Your task to perform on an android device: Go to battery settings Image 0: 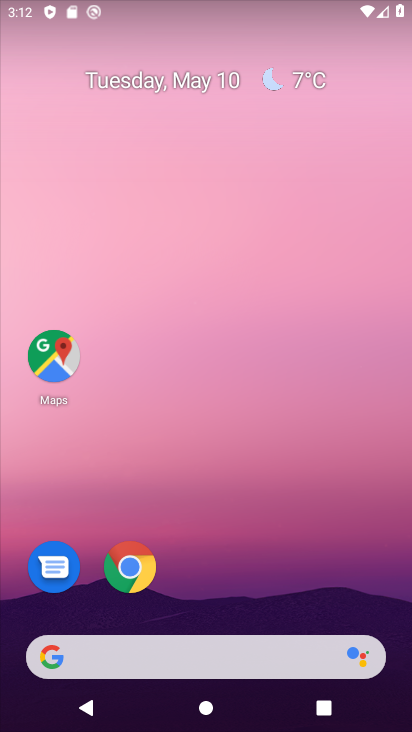
Step 0: drag from (237, 571) to (263, 59)
Your task to perform on an android device: Go to battery settings Image 1: 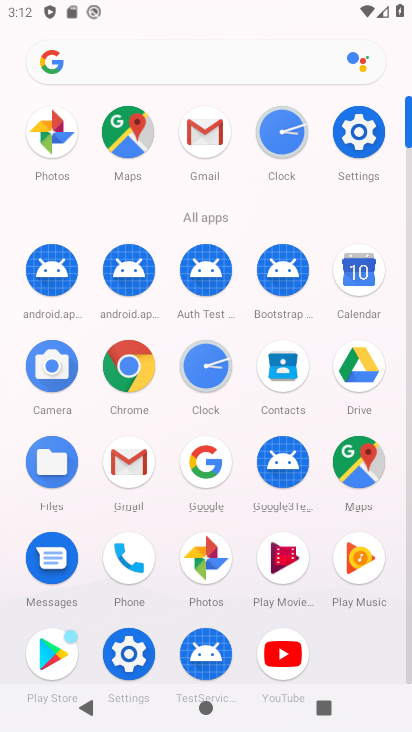
Step 1: click (357, 132)
Your task to perform on an android device: Go to battery settings Image 2: 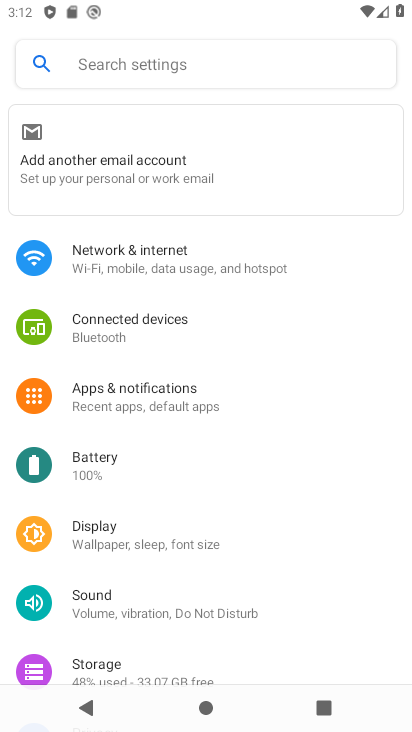
Step 2: click (100, 458)
Your task to perform on an android device: Go to battery settings Image 3: 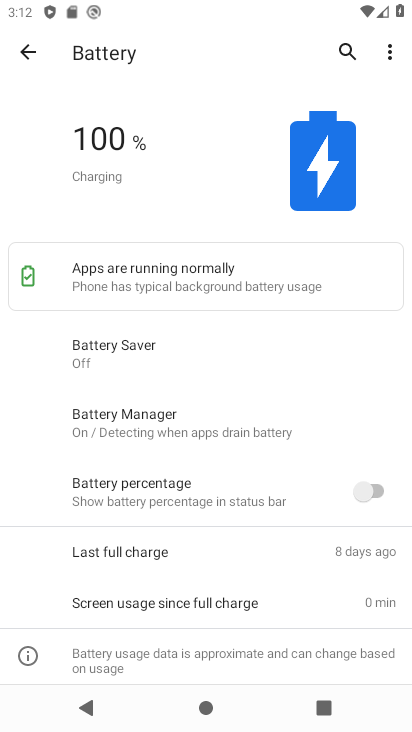
Step 3: task complete